Your task to perform on an android device: find photos in the google photos app Image 0: 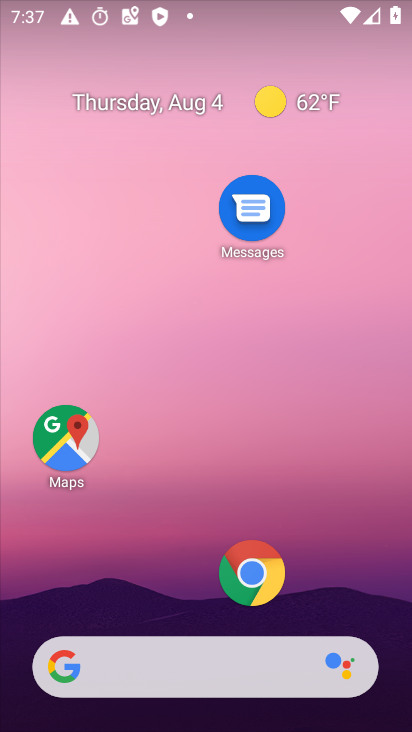
Step 0: press home button
Your task to perform on an android device: find photos in the google photos app Image 1: 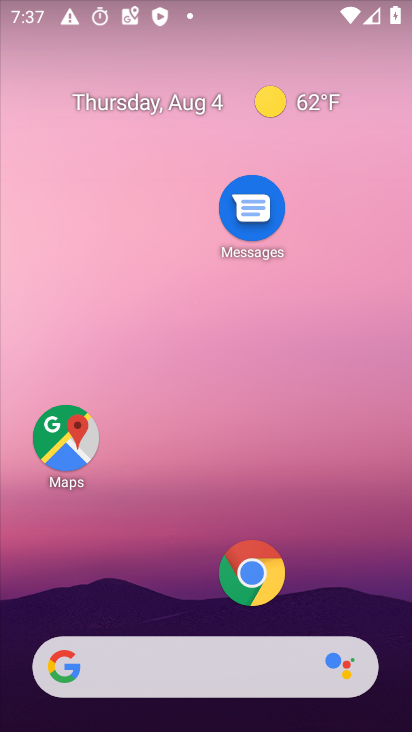
Step 1: drag from (159, 508) to (221, 126)
Your task to perform on an android device: find photos in the google photos app Image 2: 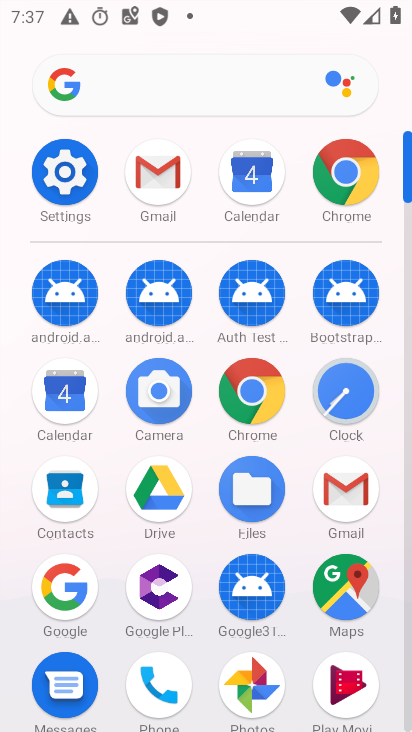
Step 2: click (256, 688)
Your task to perform on an android device: find photos in the google photos app Image 3: 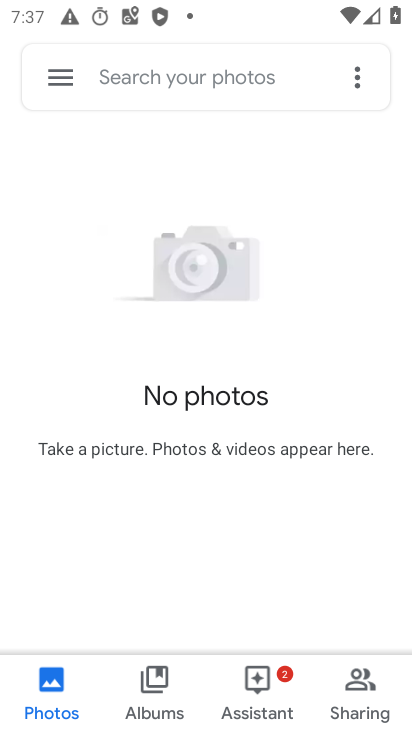
Step 3: task complete